Your task to perform on an android device: Open settings Image 0: 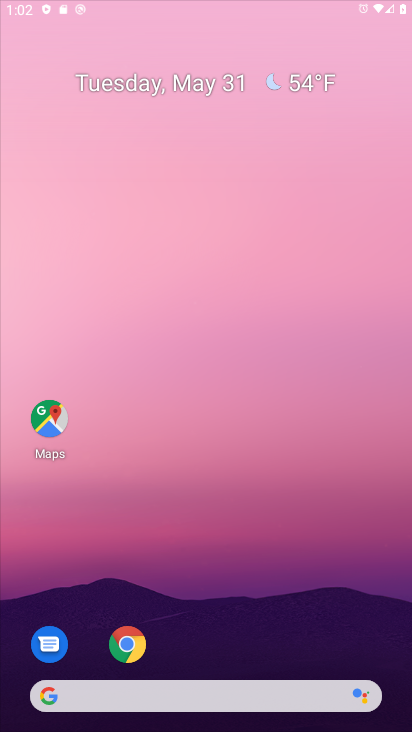
Step 0: press home button
Your task to perform on an android device: Open settings Image 1: 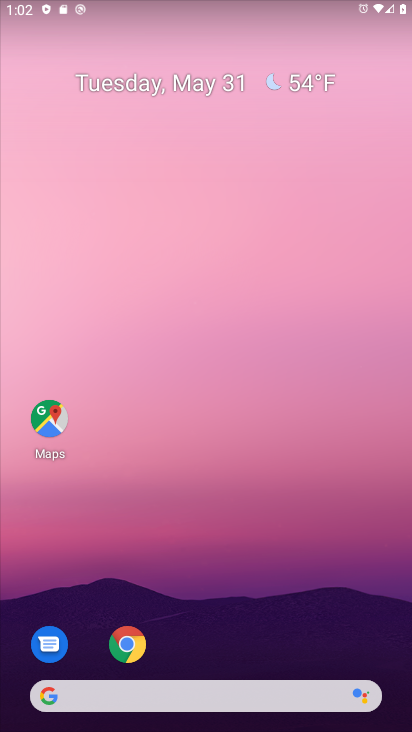
Step 1: drag from (292, 633) to (277, 168)
Your task to perform on an android device: Open settings Image 2: 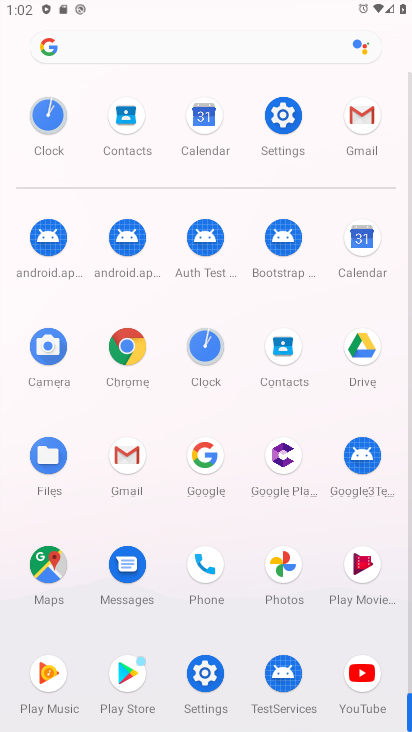
Step 2: click (289, 118)
Your task to perform on an android device: Open settings Image 3: 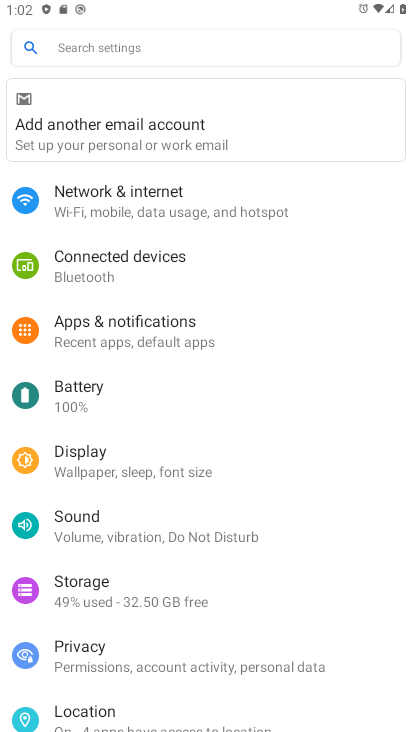
Step 3: task complete